Your task to perform on an android device: turn off notifications in google photos Image 0: 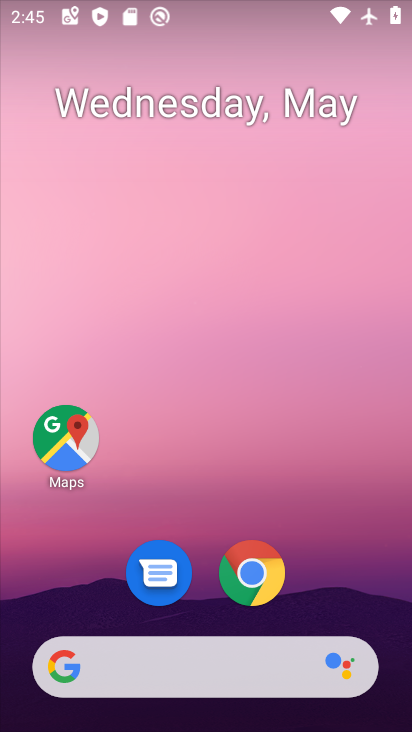
Step 0: drag from (315, 598) to (331, 5)
Your task to perform on an android device: turn off notifications in google photos Image 1: 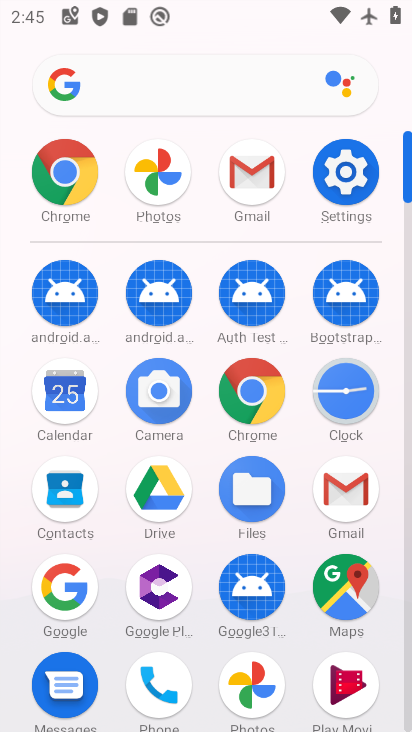
Step 1: click (148, 176)
Your task to perform on an android device: turn off notifications in google photos Image 2: 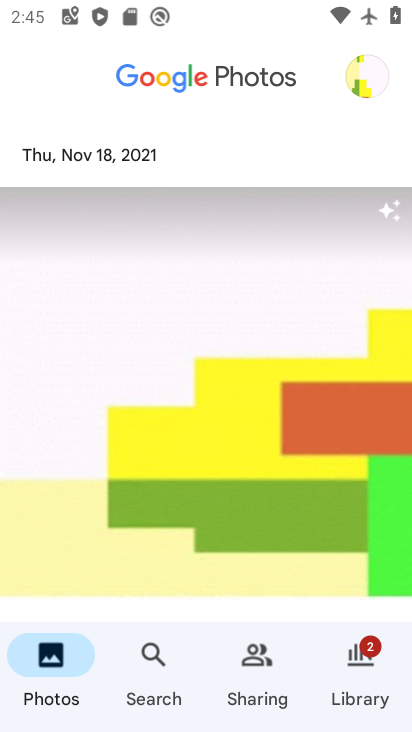
Step 2: click (370, 86)
Your task to perform on an android device: turn off notifications in google photos Image 3: 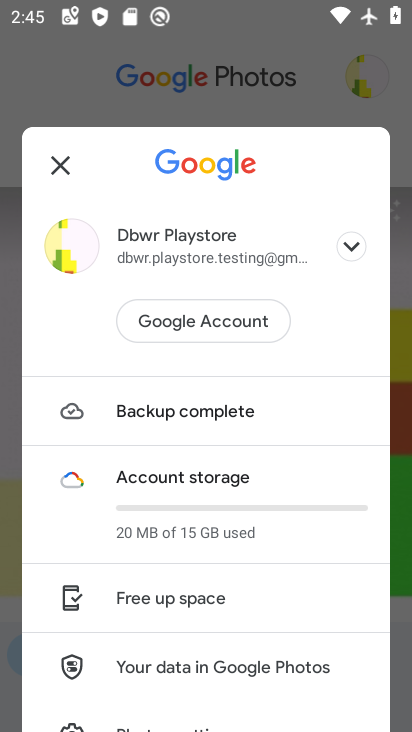
Step 3: drag from (187, 642) to (221, 346)
Your task to perform on an android device: turn off notifications in google photos Image 4: 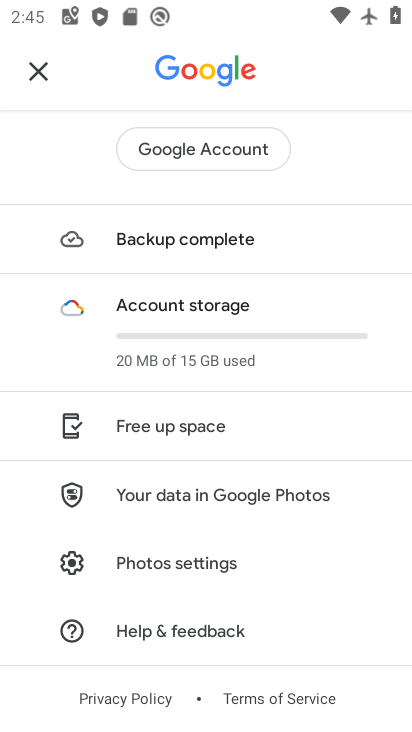
Step 4: click (211, 550)
Your task to perform on an android device: turn off notifications in google photos Image 5: 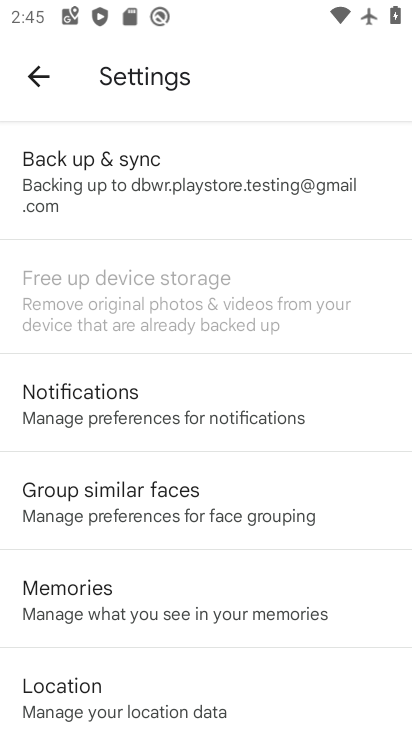
Step 5: click (147, 382)
Your task to perform on an android device: turn off notifications in google photos Image 6: 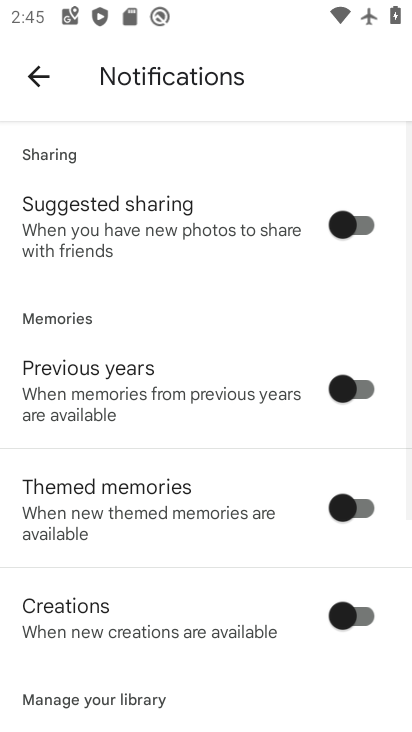
Step 6: drag from (178, 657) to (251, 192)
Your task to perform on an android device: turn off notifications in google photos Image 7: 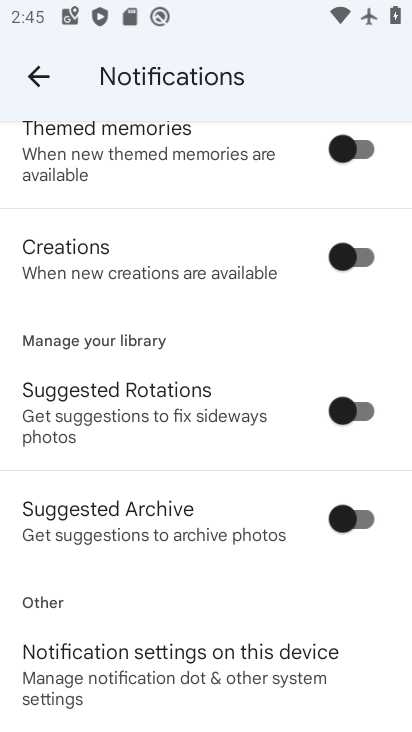
Step 7: drag from (224, 637) to (245, 384)
Your task to perform on an android device: turn off notifications in google photos Image 8: 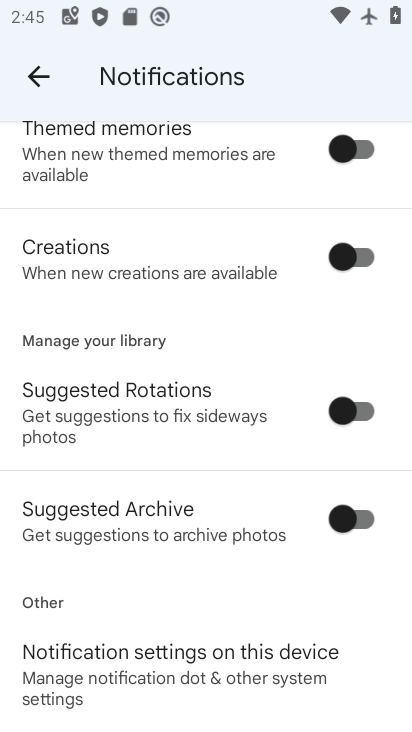
Step 8: click (143, 677)
Your task to perform on an android device: turn off notifications in google photos Image 9: 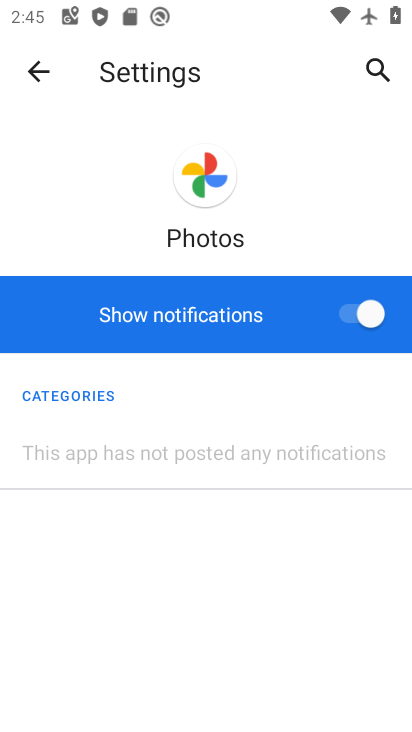
Step 9: click (361, 314)
Your task to perform on an android device: turn off notifications in google photos Image 10: 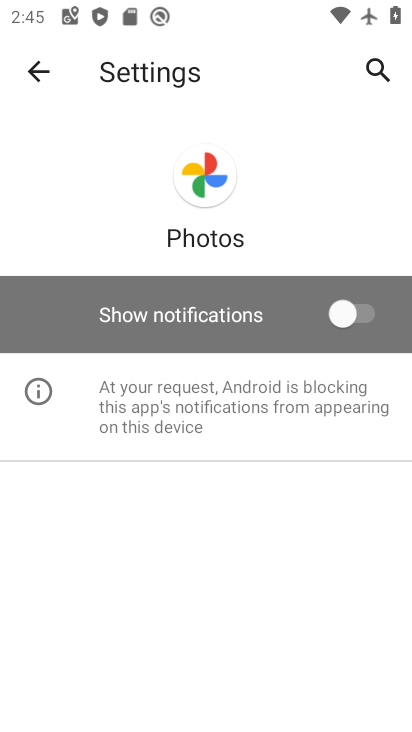
Step 10: task complete